Your task to perform on an android device: Go to Yahoo.com Image 0: 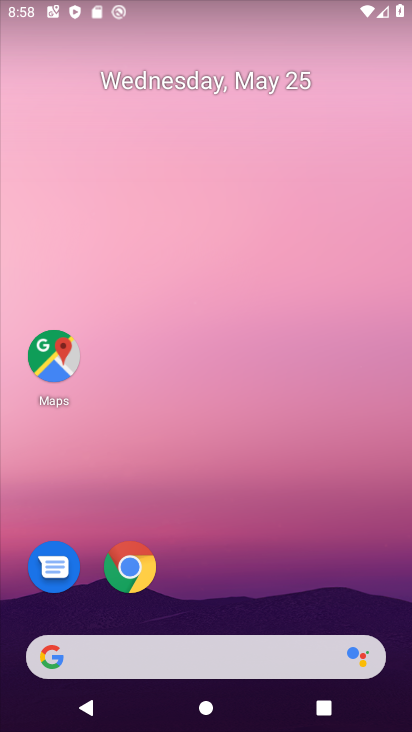
Step 0: click (221, 657)
Your task to perform on an android device: Go to Yahoo.com Image 1: 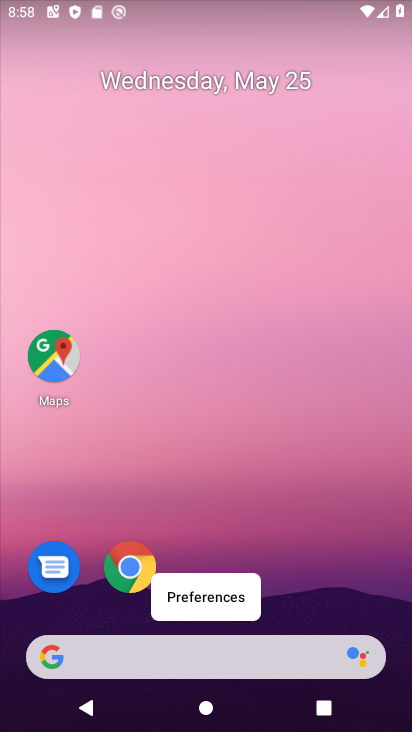
Step 1: click (221, 657)
Your task to perform on an android device: Go to Yahoo.com Image 2: 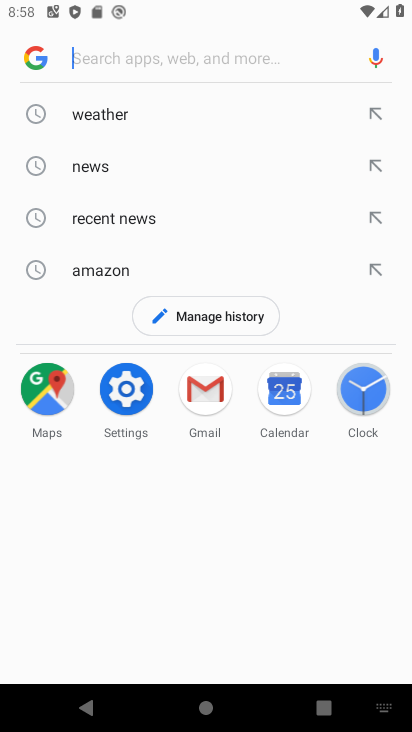
Step 2: type "yahoo.com"
Your task to perform on an android device: Go to Yahoo.com Image 3: 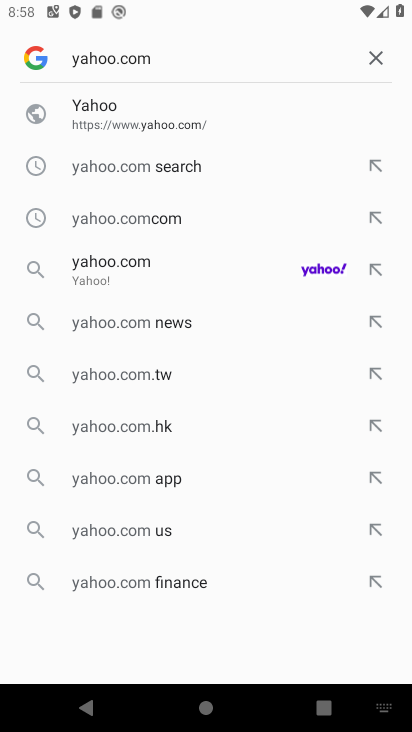
Step 3: click (230, 266)
Your task to perform on an android device: Go to Yahoo.com Image 4: 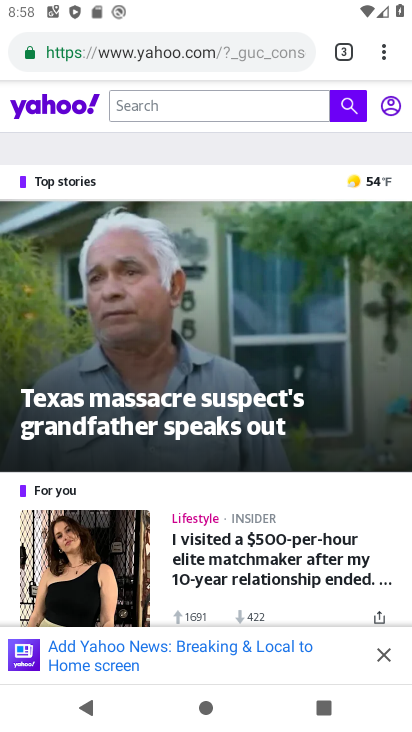
Step 4: task complete